Your task to perform on an android device: Open display settings Image 0: 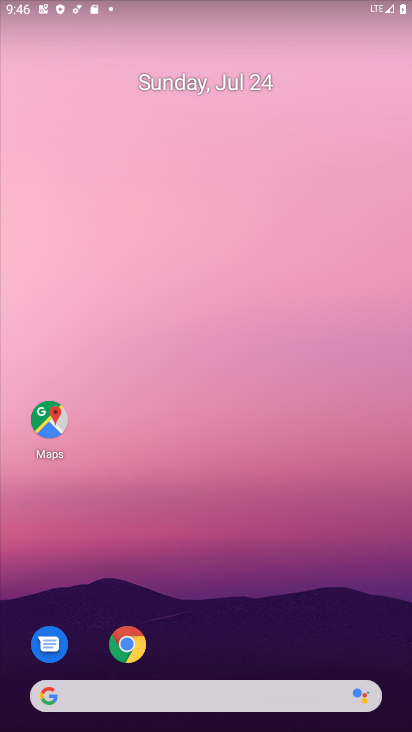
Step 0: drag from (74, 469) to (247, 75)
Your task to perform on an android device: Open display settings Image 1: 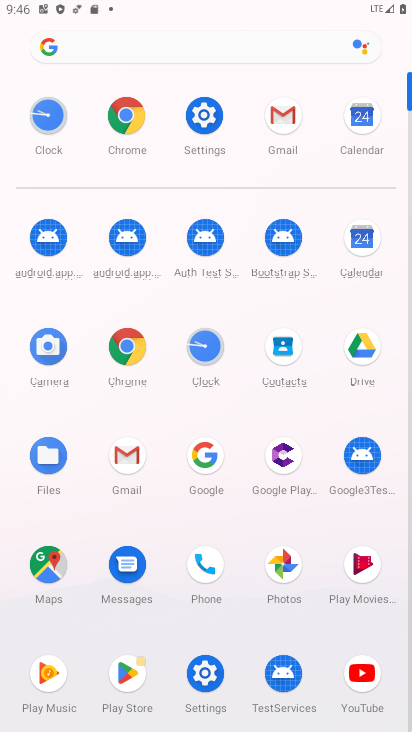
Step 1: click (201, 111)
Your task to perform on an android device: Open display settings Image 2: 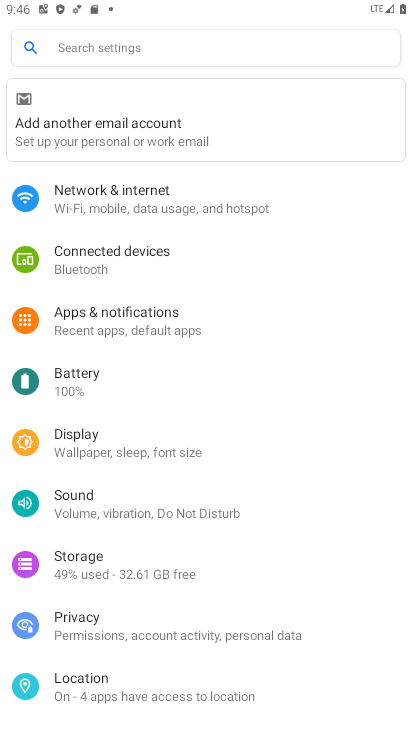
Step 2: click (93, 459)
Your task to perform on an android device: Open display settings Image 3: 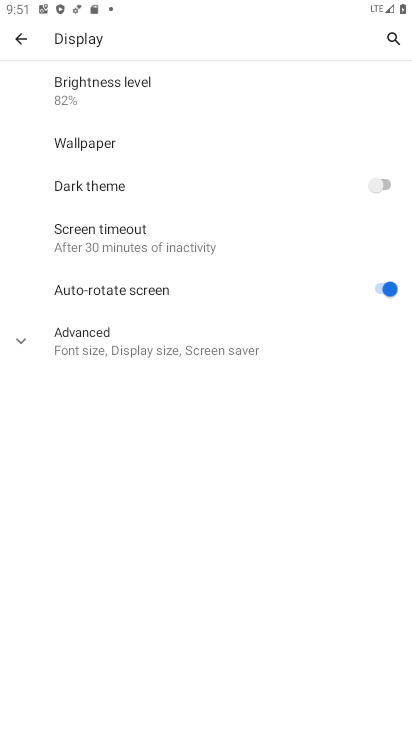
Step 3: task complete